Your task to perform on an android device: allow cookies in the chrome app Image 0: 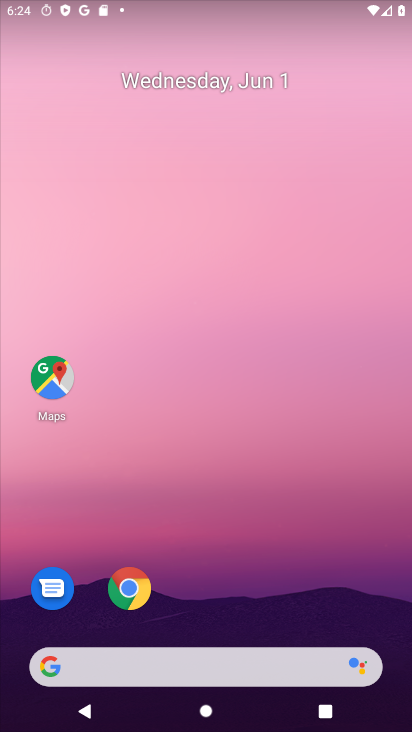
Step 0: click (132, 584)
Your task to perform on an android device: allow cookies in the chrome app Image 1: 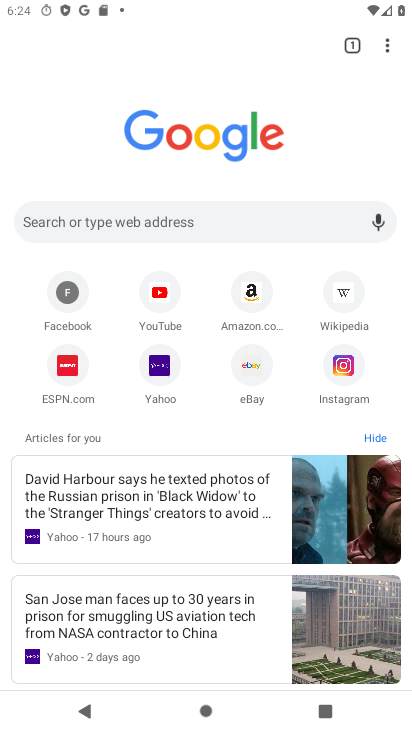
Step 1: click (389, 42)
Your task to perform on an android device: allow cookies in the chrome app Image 2: 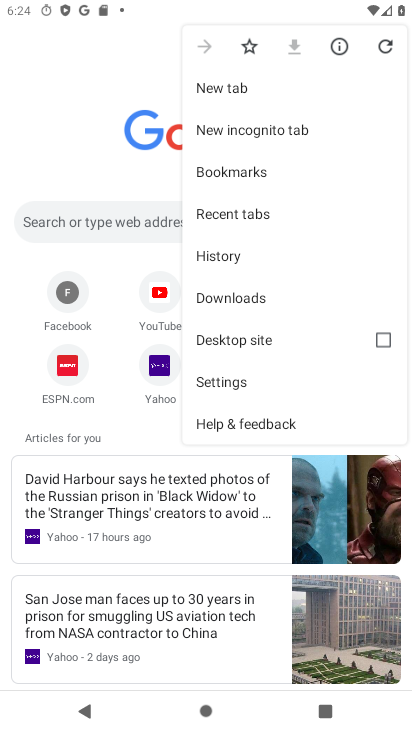
Step 2: click (245, 384)
Your task to perform on an android device: allow cookies in the chrome app Image 3: 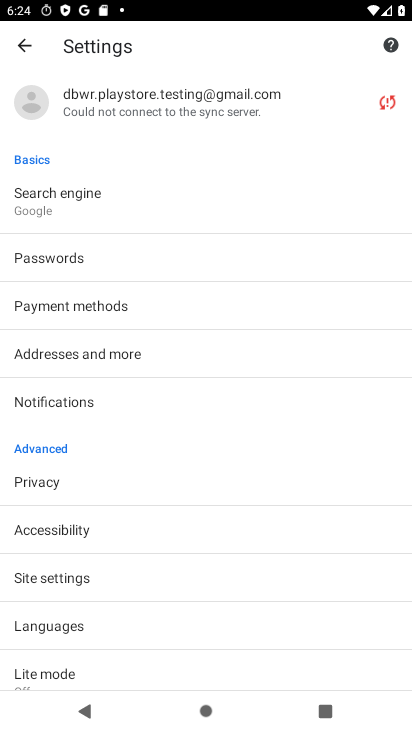
Step 3: click (74, 577)
Your task to perform on an android device: allow cookies in the chrome app Image 4: 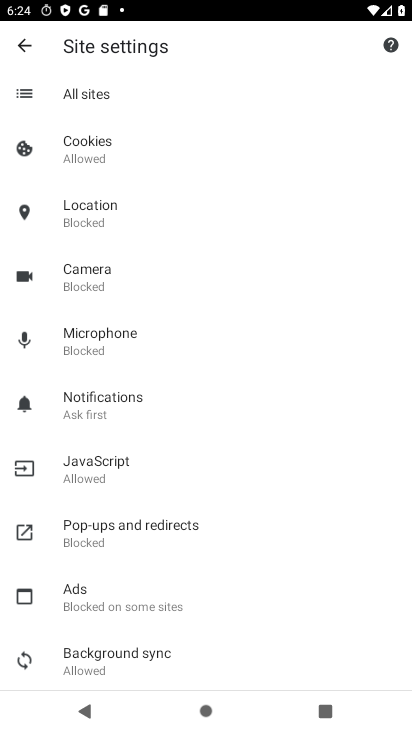
Step 4: click (85, 151)
Your task to perform on an android device: allow cookies in the chrome app Image 5: 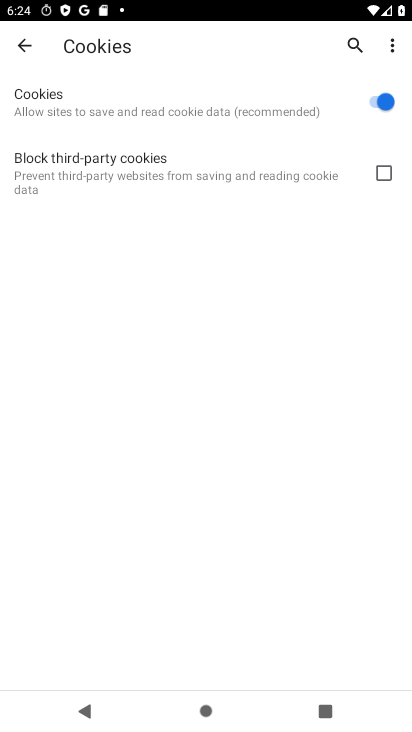
Step 5: task complete